Your task to perform on an android device: refresh tabs in the chrome app Image 0: 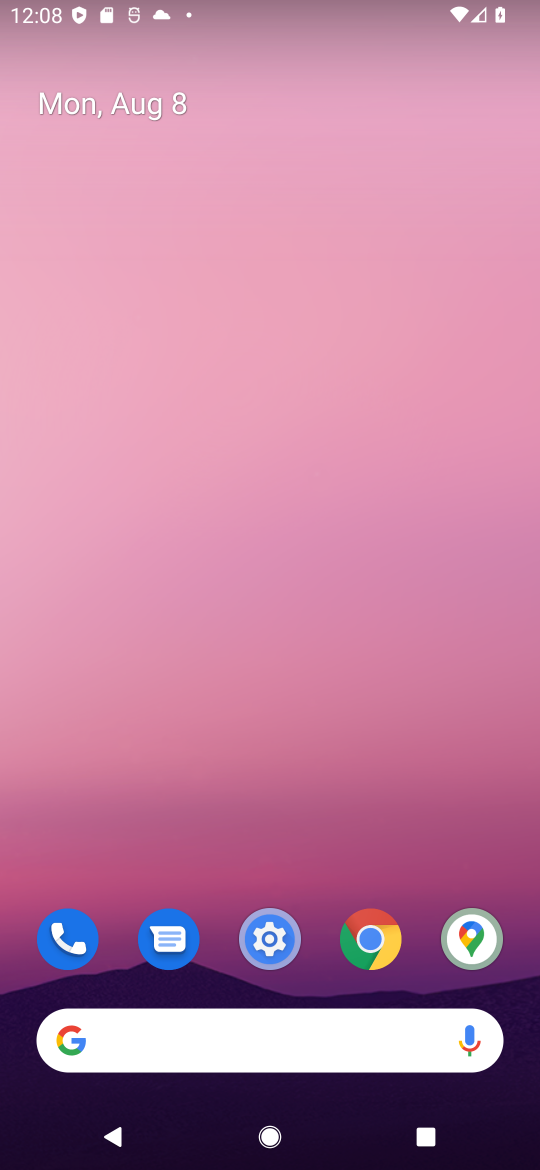
Step 0: click (372, 944)
Your task to perform on an android device: refresh tabs in the chrome app Image 1: 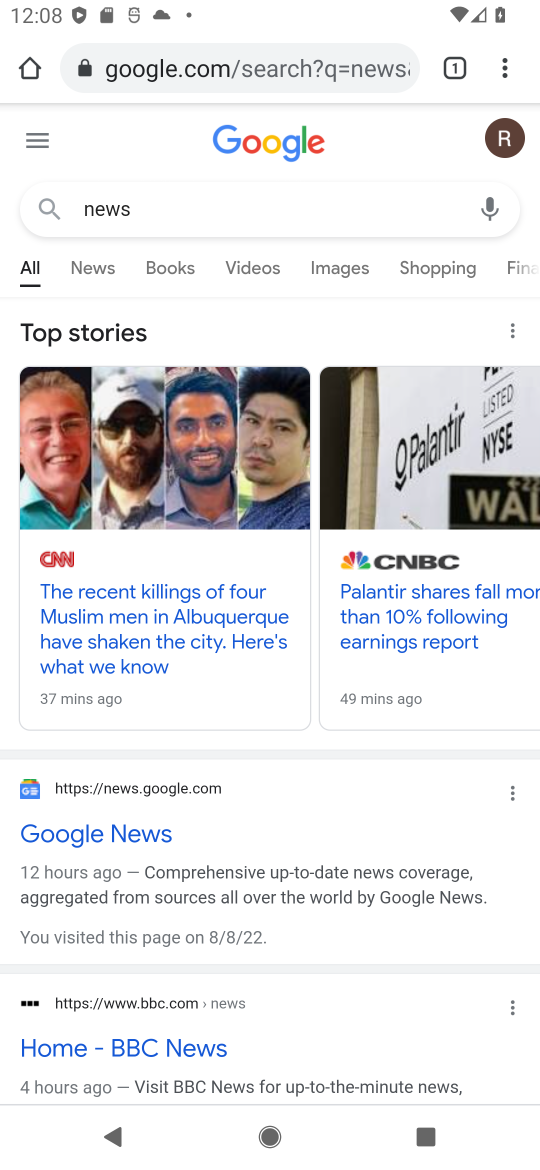
Step 1: click (525, 69)
Your task to perform on an android device: refresh tabs in the chrome app Image 2: 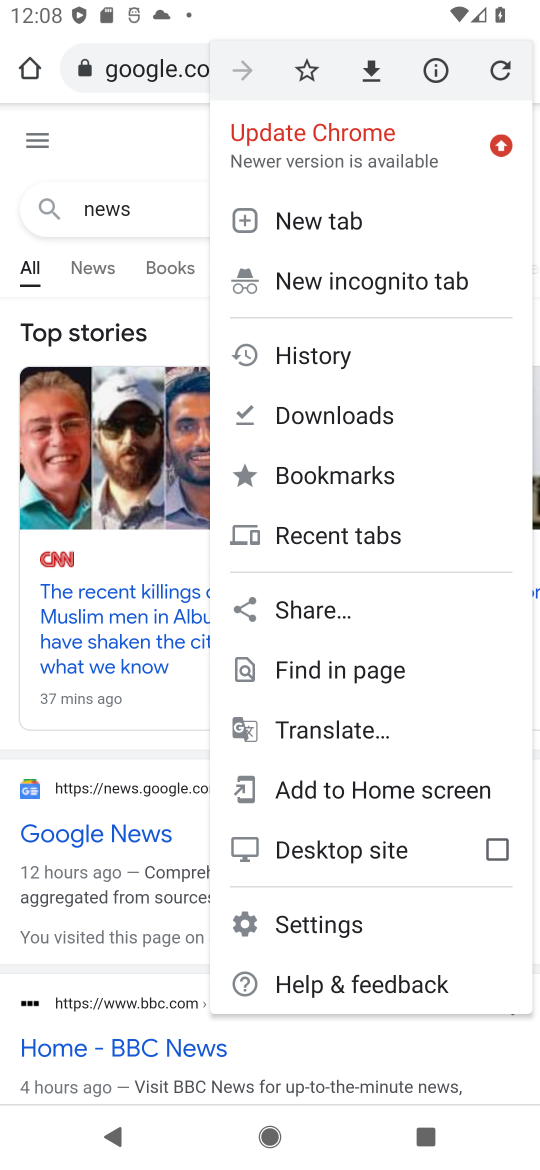
Step 2: click (499, 73)
Your task to perform on an android device: refresh tabs in the chrome app Image 3: 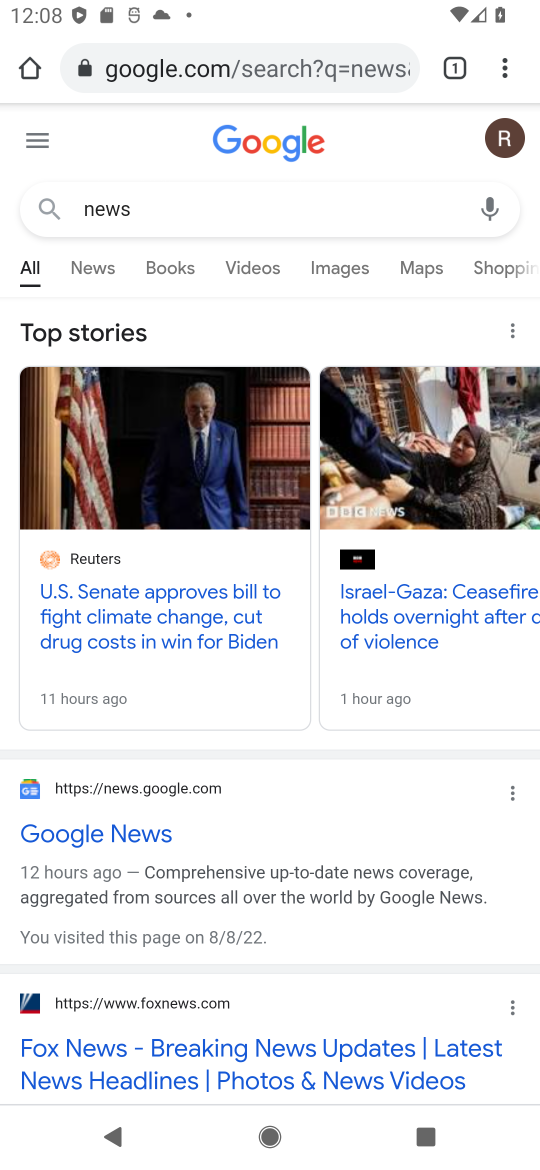
Step 3: task complete